Your task to perform on an android device: turn on the 12-hour format for clock Image 0: 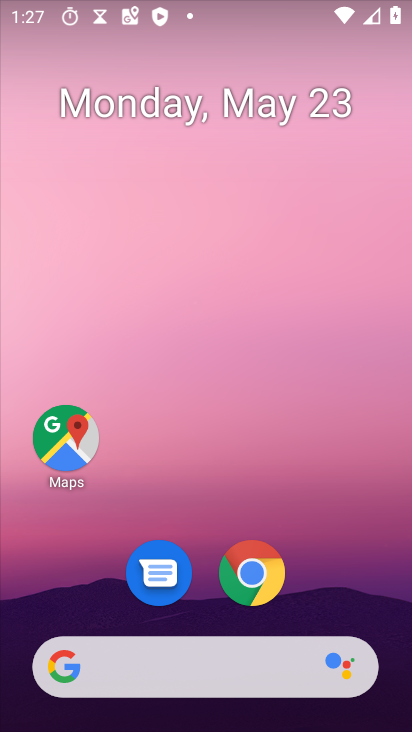
Step 0: press home button
Your task to perform on an android device: turn on the 12-hour format for clock Image 1: 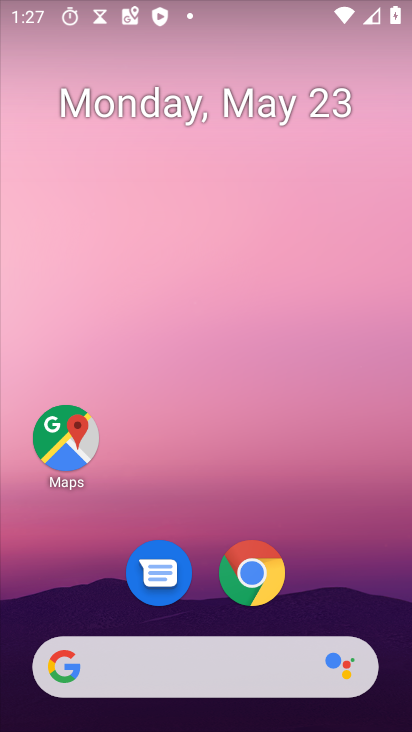
Step 1: drag from (165, 672) to (314, 149)
Your task to perform on an android device: turn on the 12-hour format for clock Image 2: 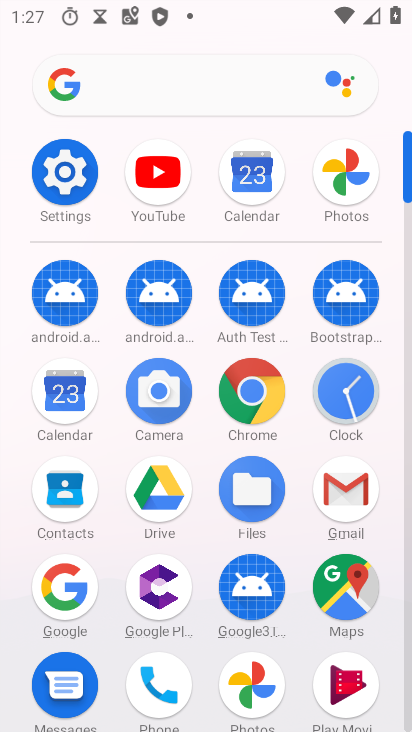
Step 2: click (357, 398)
Your task to perform on an android device: turn on the 12-hour format for clock Image 3: 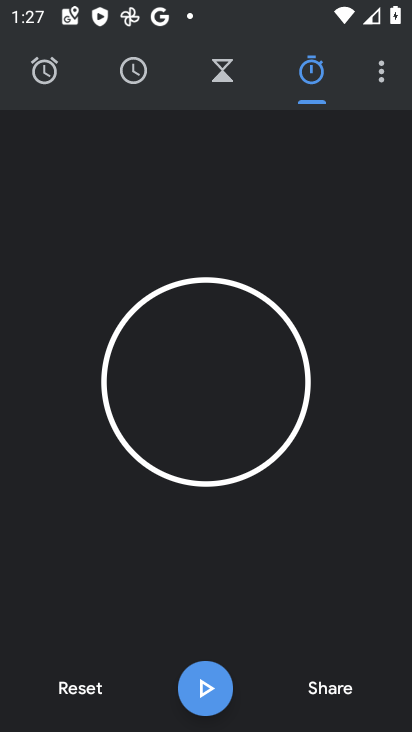
Step 3: click (380, 79)
Your task to perform on an android device: turn on the 12-hour format for clock Image 4: 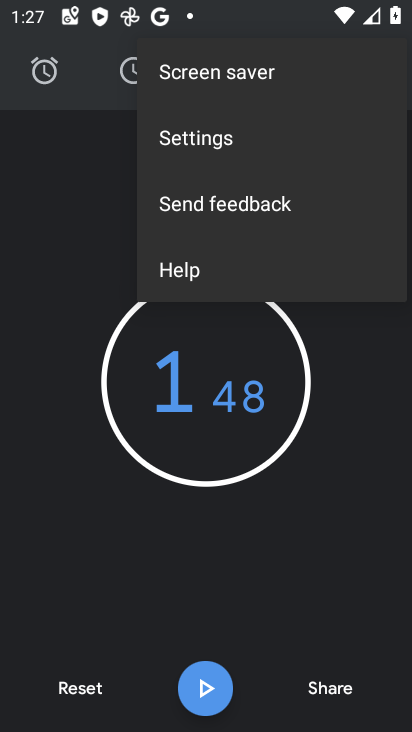
Step 4: click (196, 154)
Your task to perform on an android device: turn on the 12-hour format for clock Image 5: 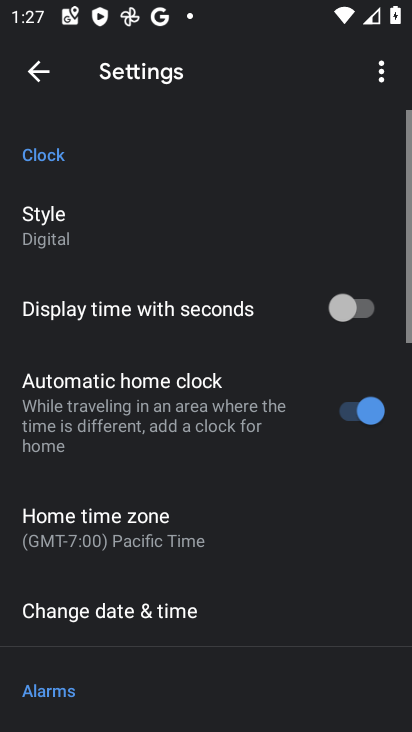
Step 5: click (125, 612)
Your task to perform on an android device: turn on the 12-hour format for clock Image 6: 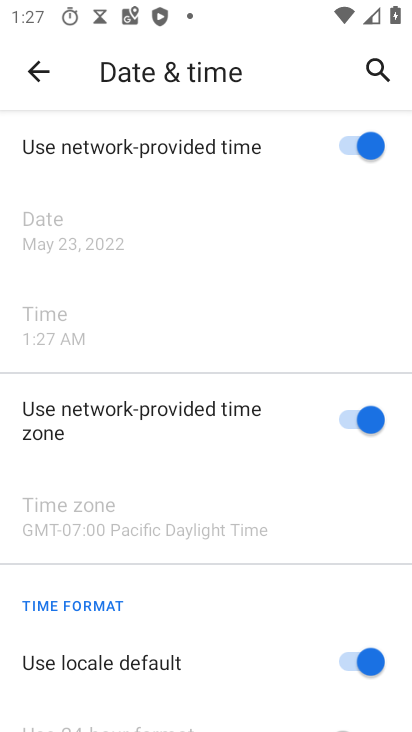
Step 6: task complete